Your task to perform on an android device: open app "Google Photos" (install if not already installed) Image 0: 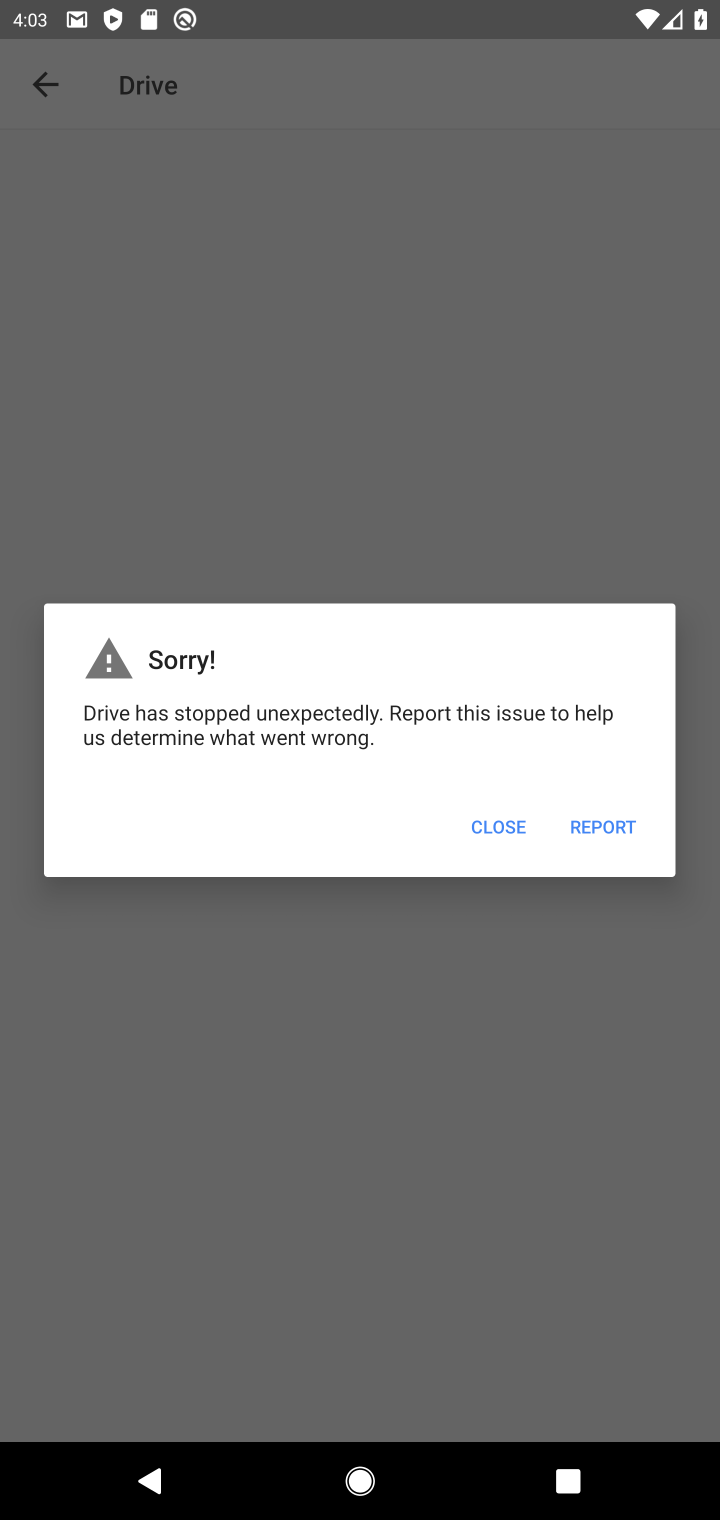
Step 0: click (480, 618)
Your task to perform on an android device: open app "Google Photos" (install if not already installed) Image 1: 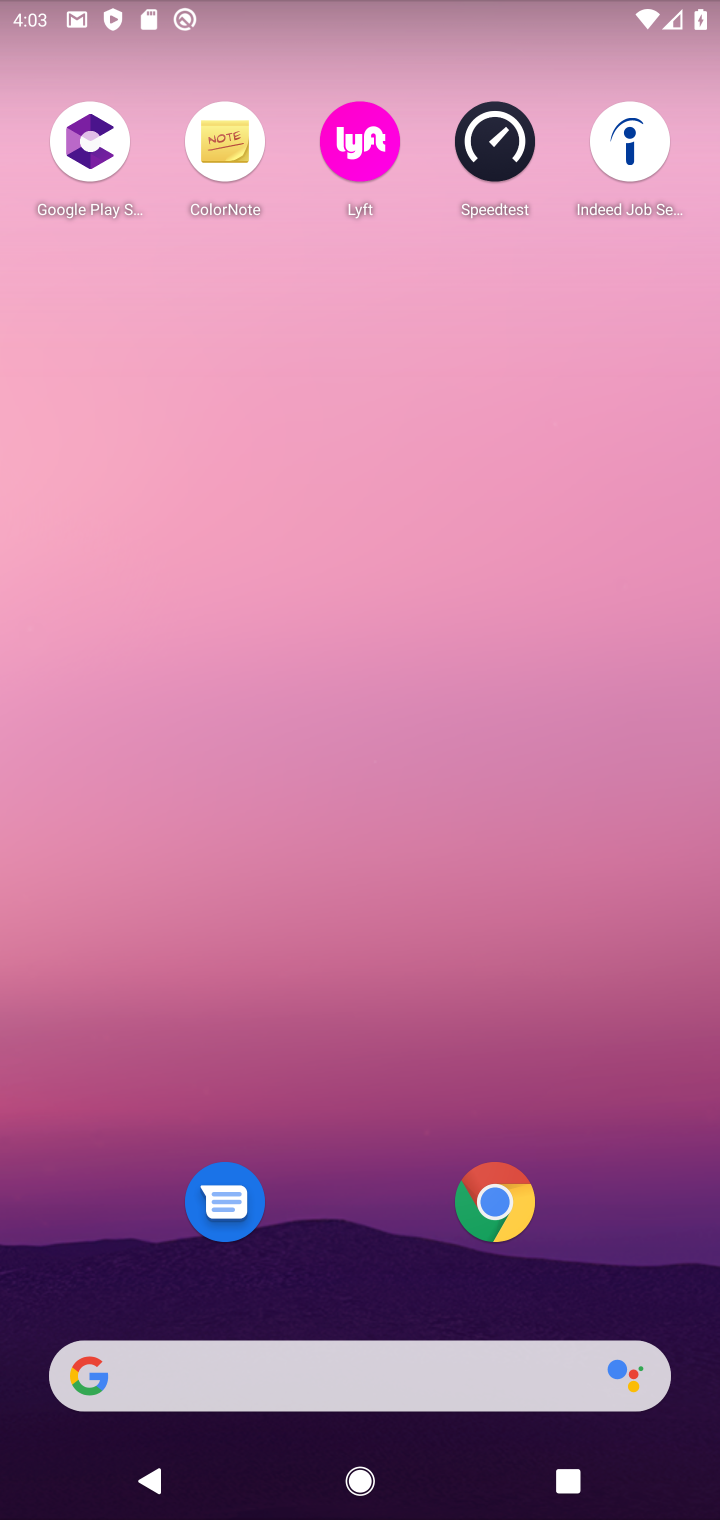
Step 1: click (294, 72)
Your task to perform on an android device: open app "Google Photos" (install if not already installed) Image 2: 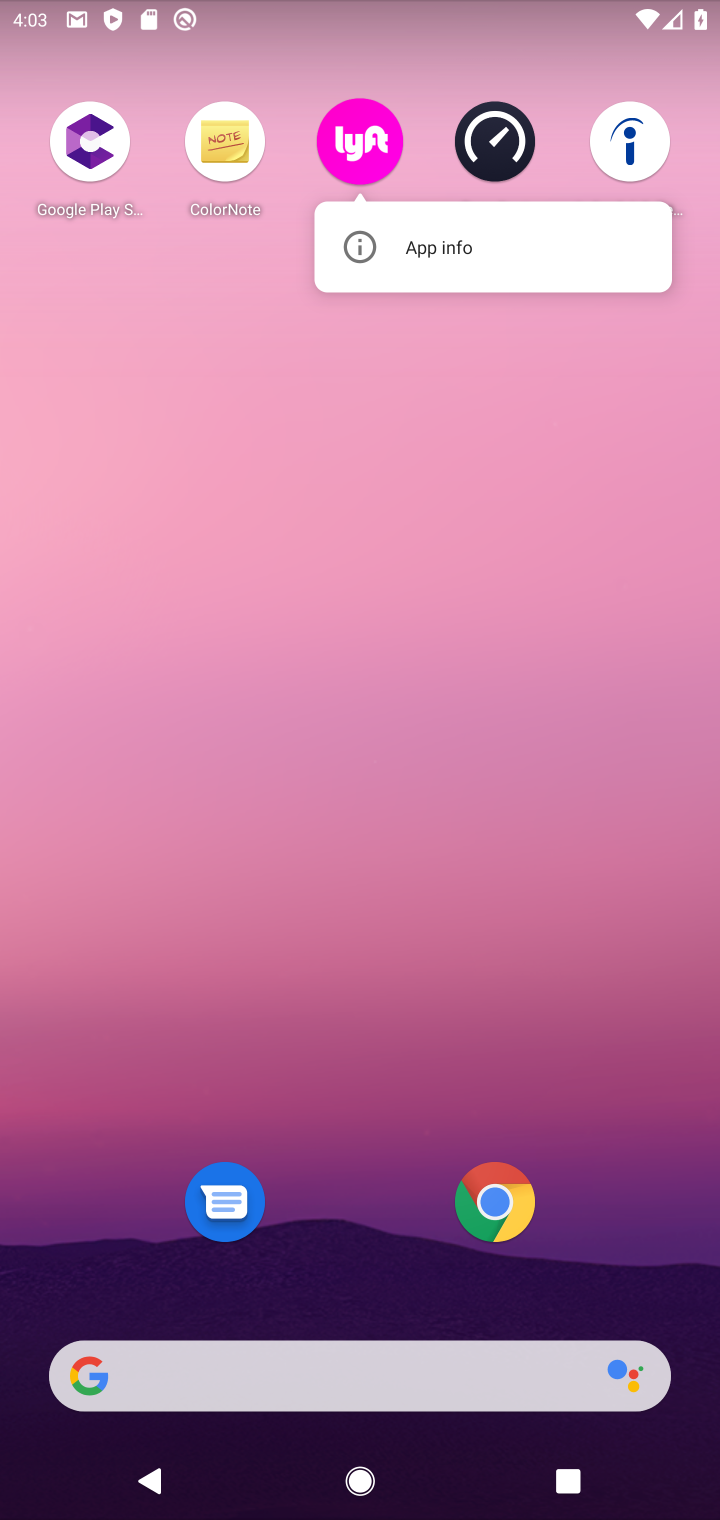
Step 2: press home button
Your task to perform on an android device: open app "Google Photos" (install if not already installed) Image 3: 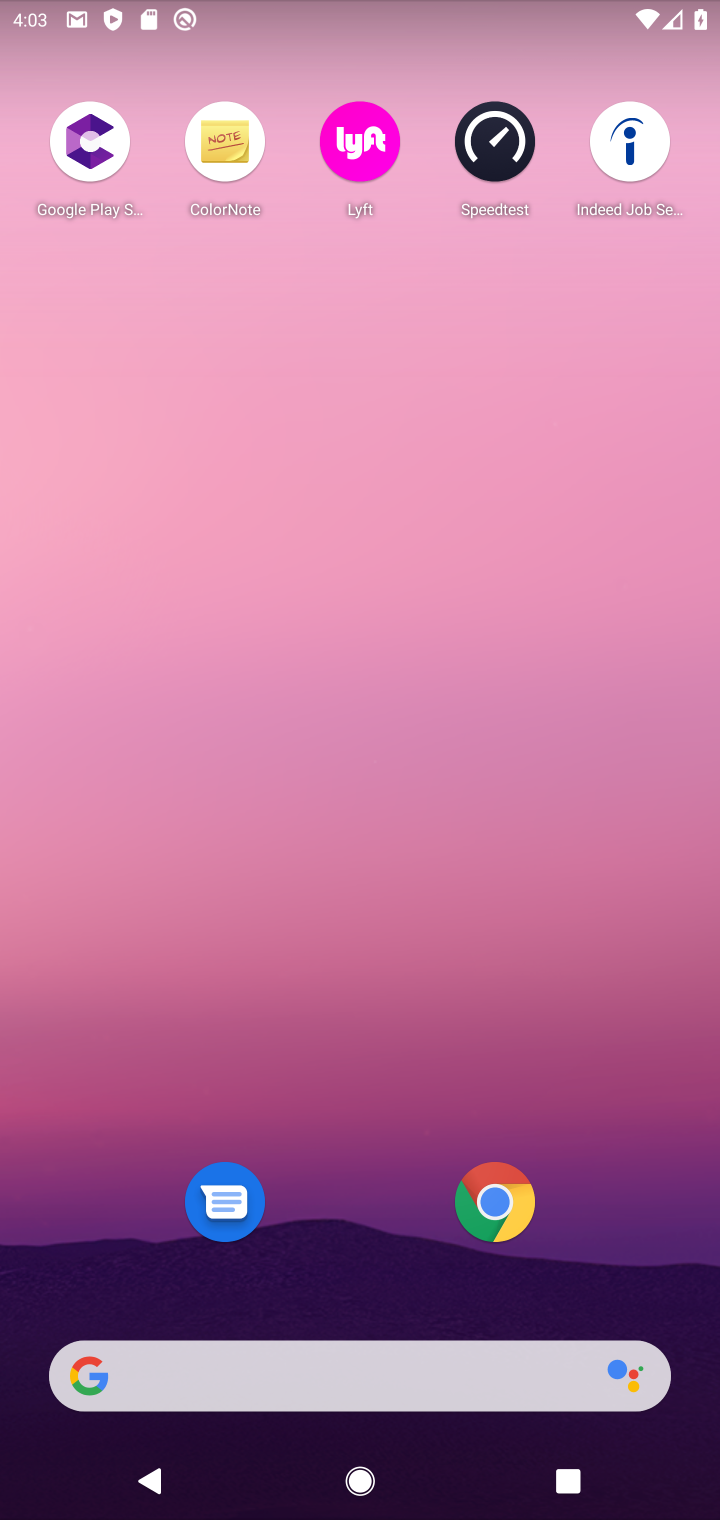
Step 3: drag from (325, 734) to (413, 479)
Your task to perform on an android device: open app "Google Photos" (install if not already installed) Image 4: 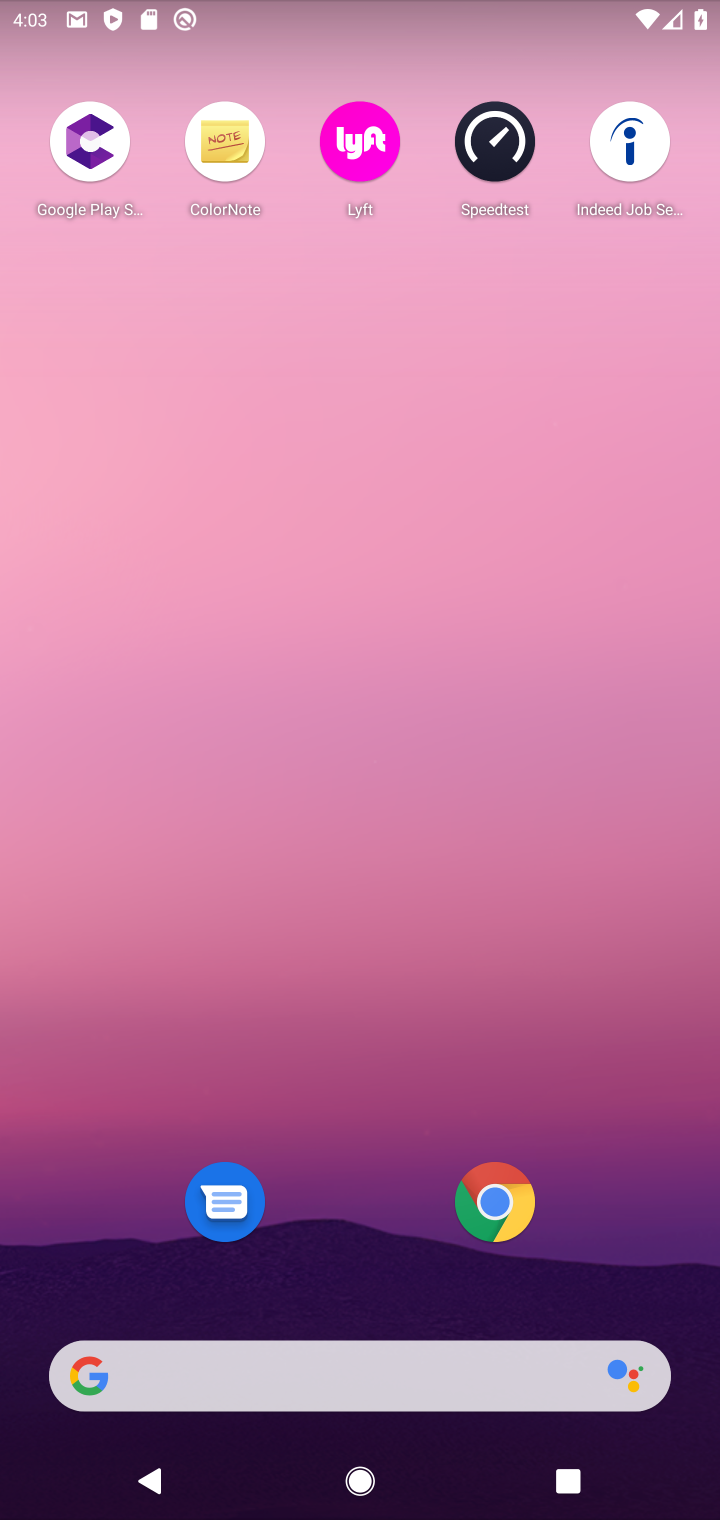
Step 4: drag from (337, 1040) to (611, 24)
Your task to perform on an android device: open app "Google Photos" (install if not already installed) Image 5: 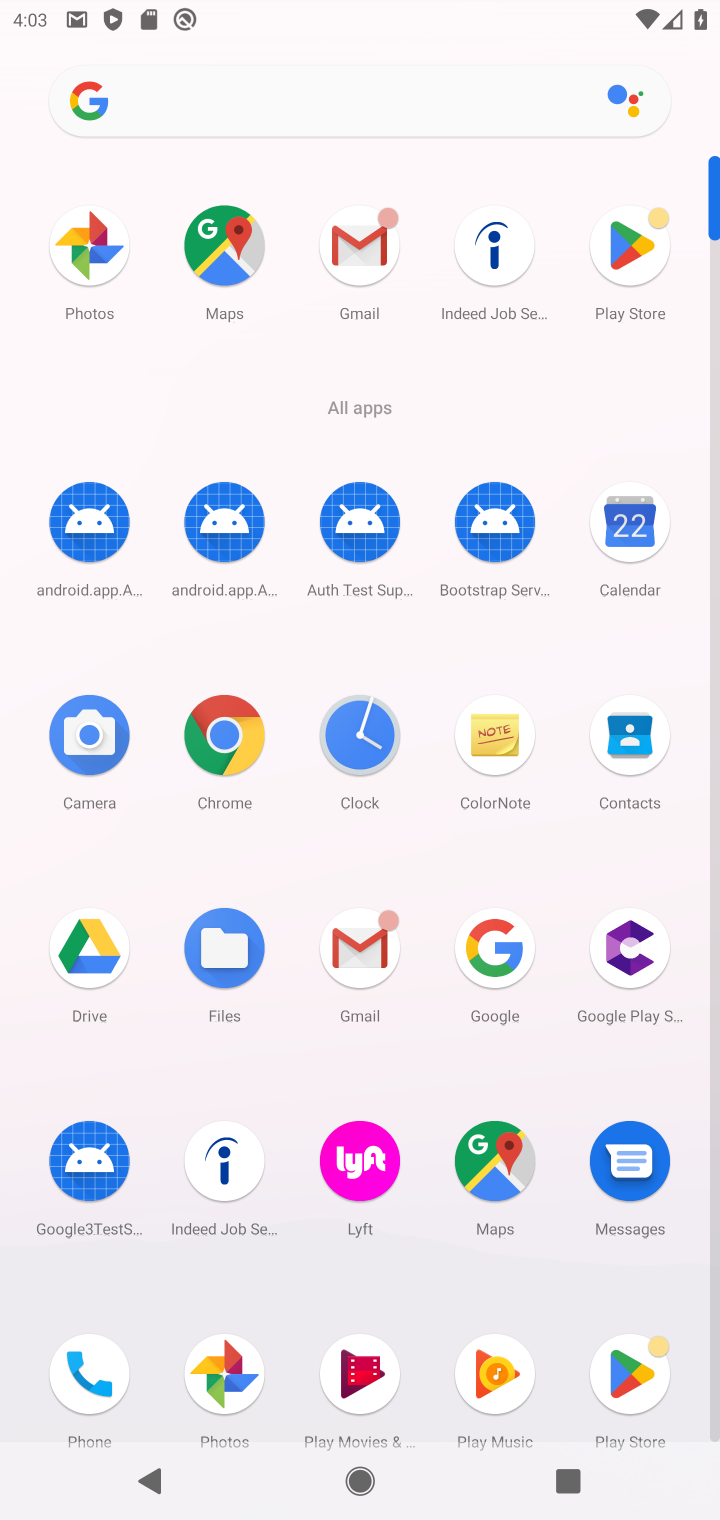
Step 5: click (631, 286)
Your task to perform on an android device: open app "Google Photos" (install if not already installed) Image 6: 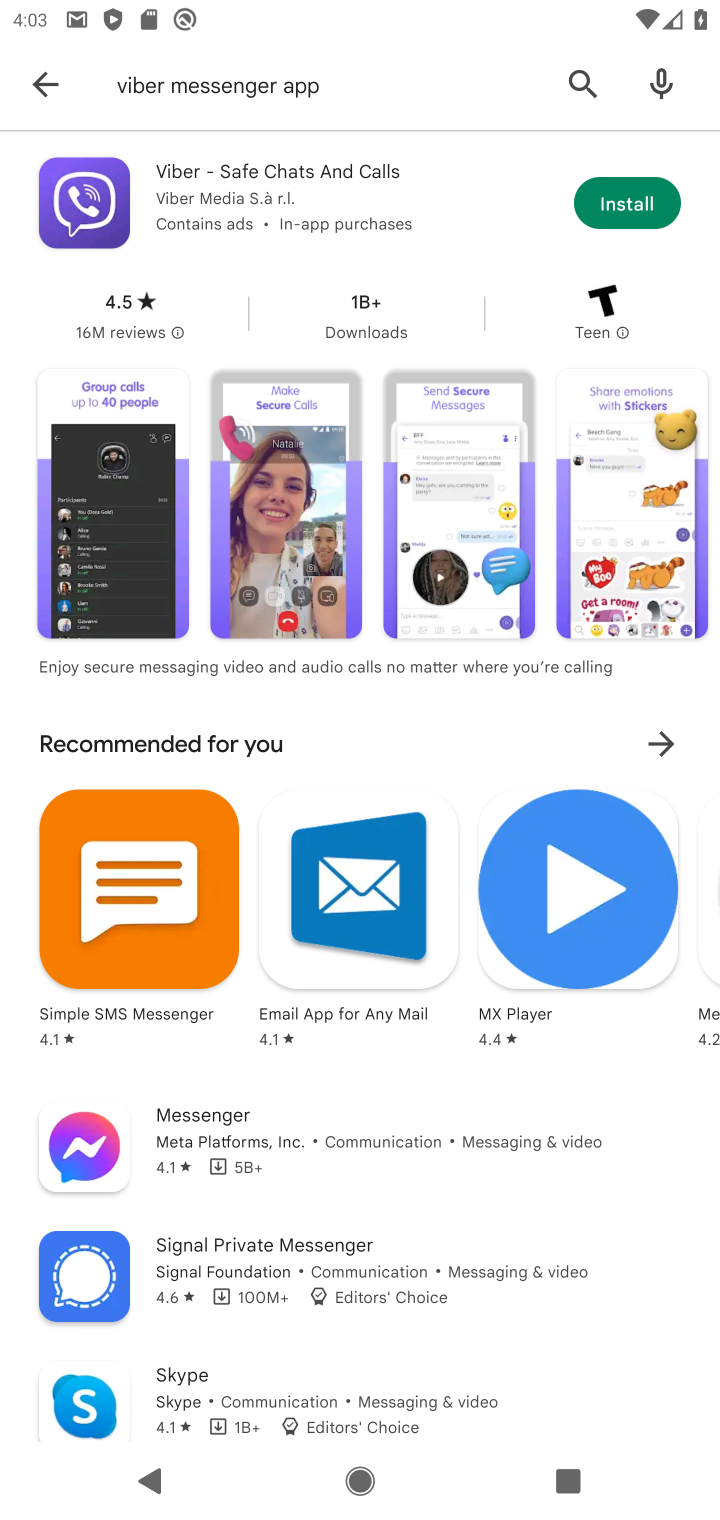
Step 6: click (293, 87)
Your task to perform on an android device: open app "Google Photos" (install if not already installed) Image 7: 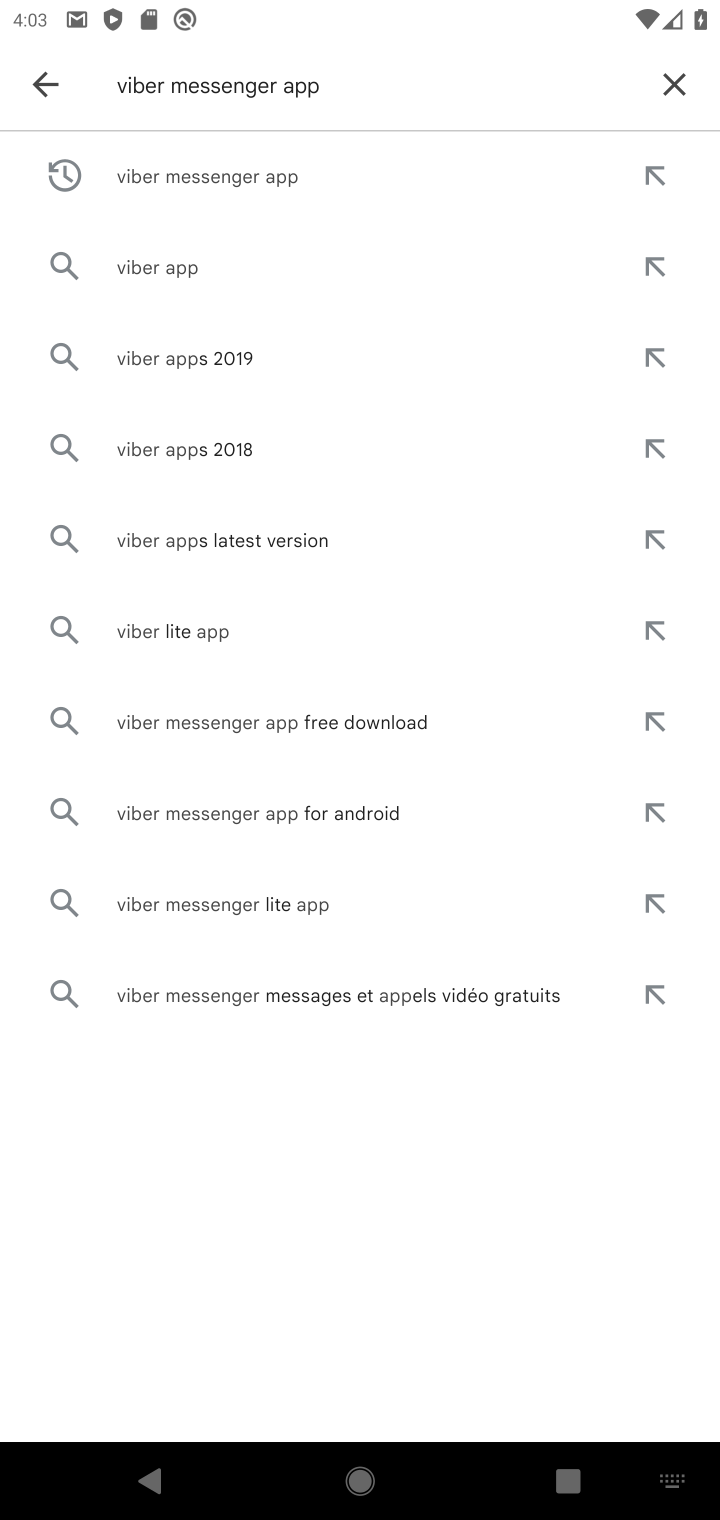
Step 7: click (680, 84)
Your task to perform on an android device: open app "Google Photos" (install if not already installed) Image 8: 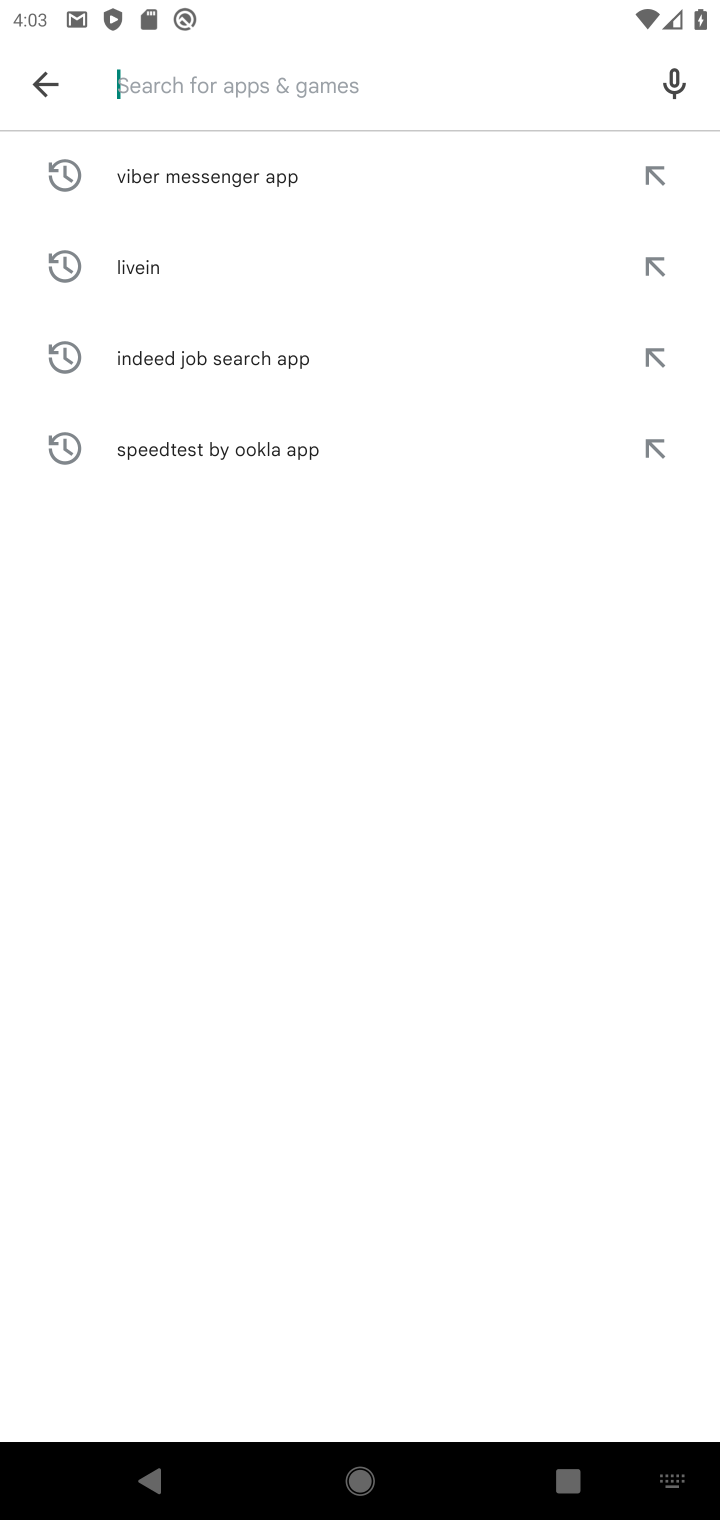
Step 8: type "google photos"
Your task to perform on an android device: open app "Google Photos" (install if not already installed) Image 9: 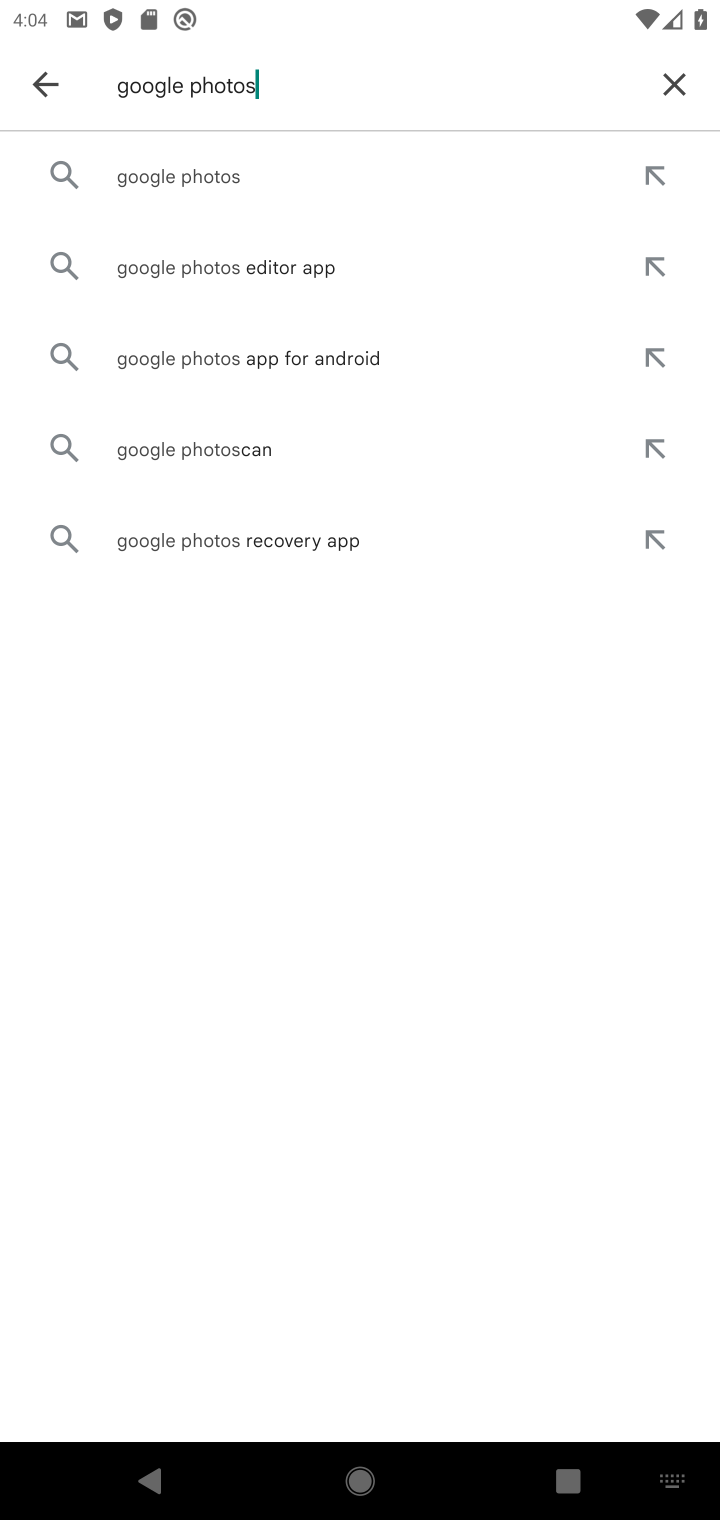
Step 9: click (221, 159)
Your task to perform on an android device: open app "Google Photos" (install if not already installed) Image 10: 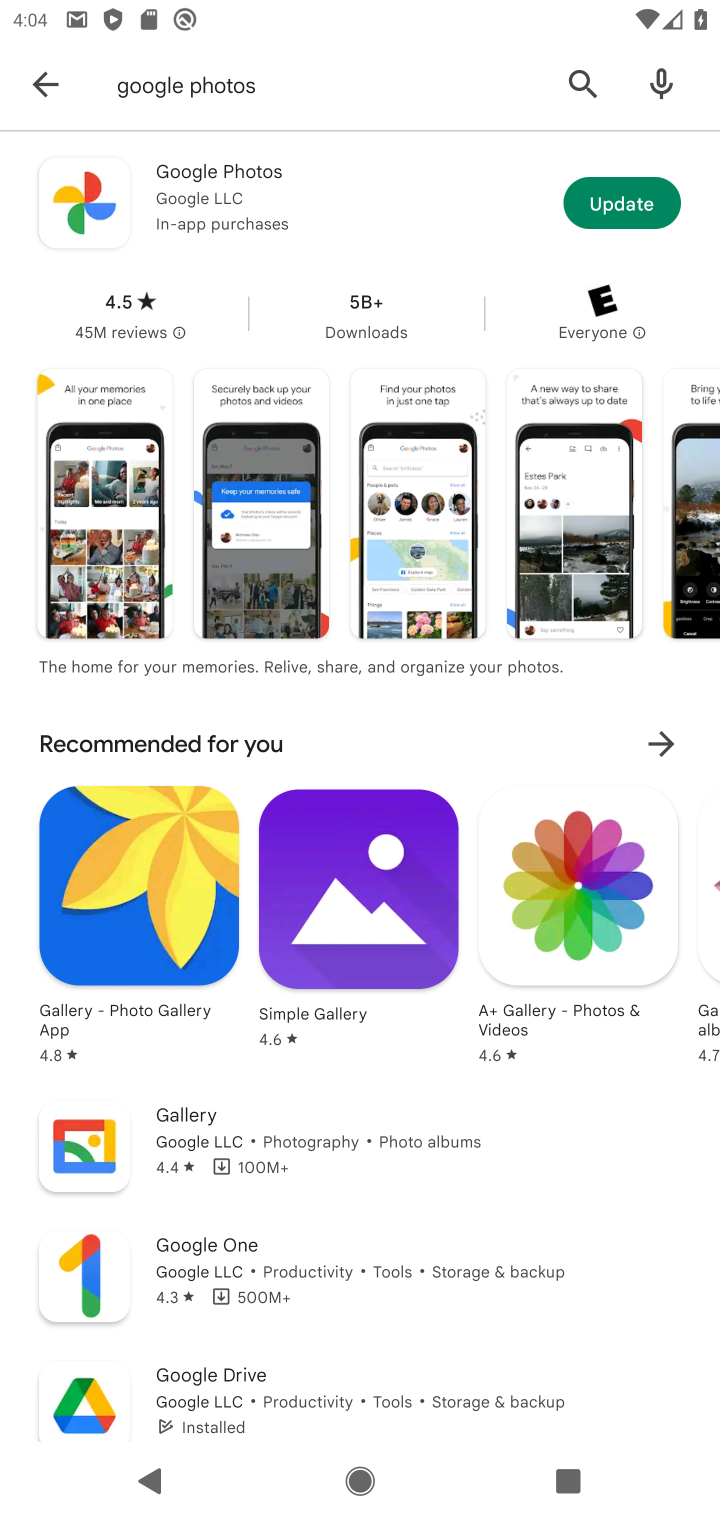
Step 10: click (617, 198)
Your task to perform on an android device: open app "Google Photos" (install if not already installed) Image 11: 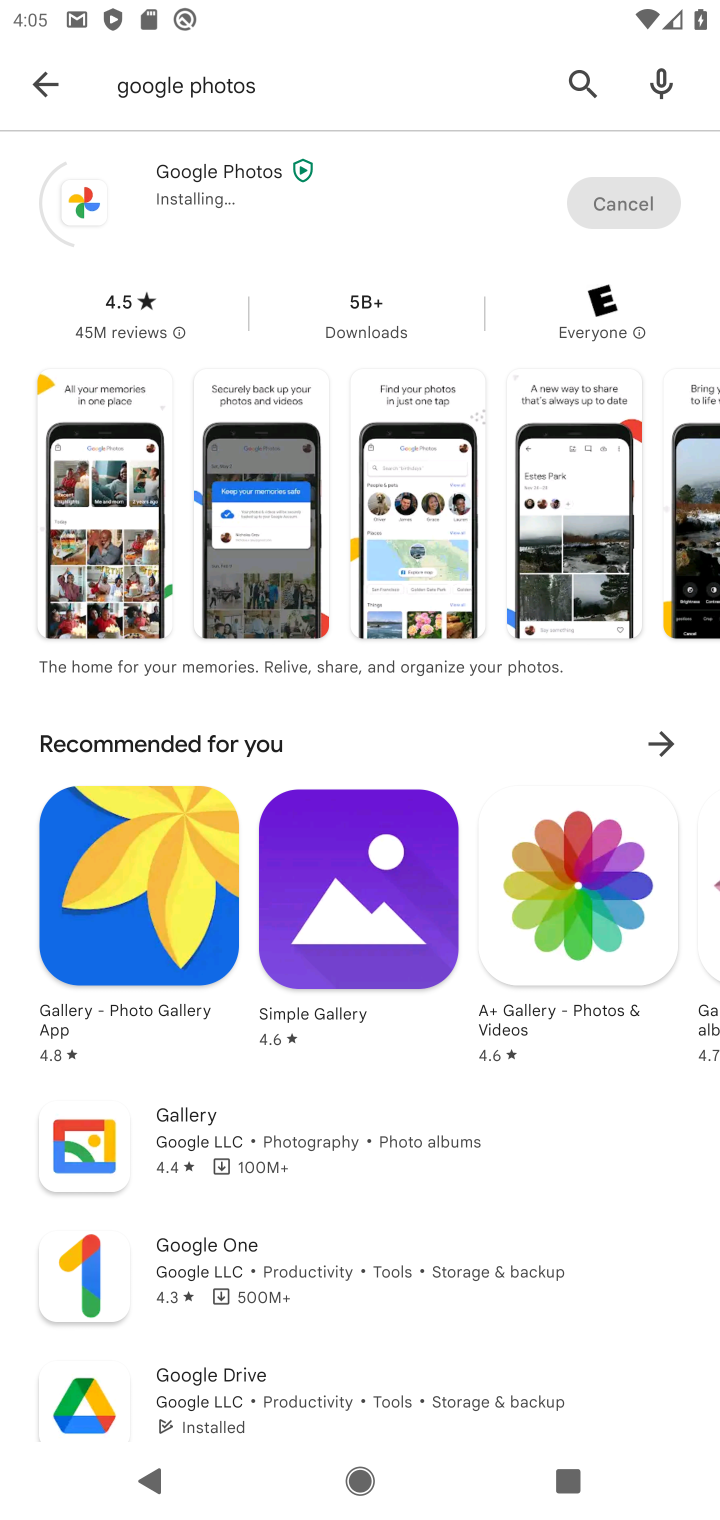
Step 11: click (432, 320)
Your task to perform on an android device: open app "Google Photos" (install if not already installed) Image 12: 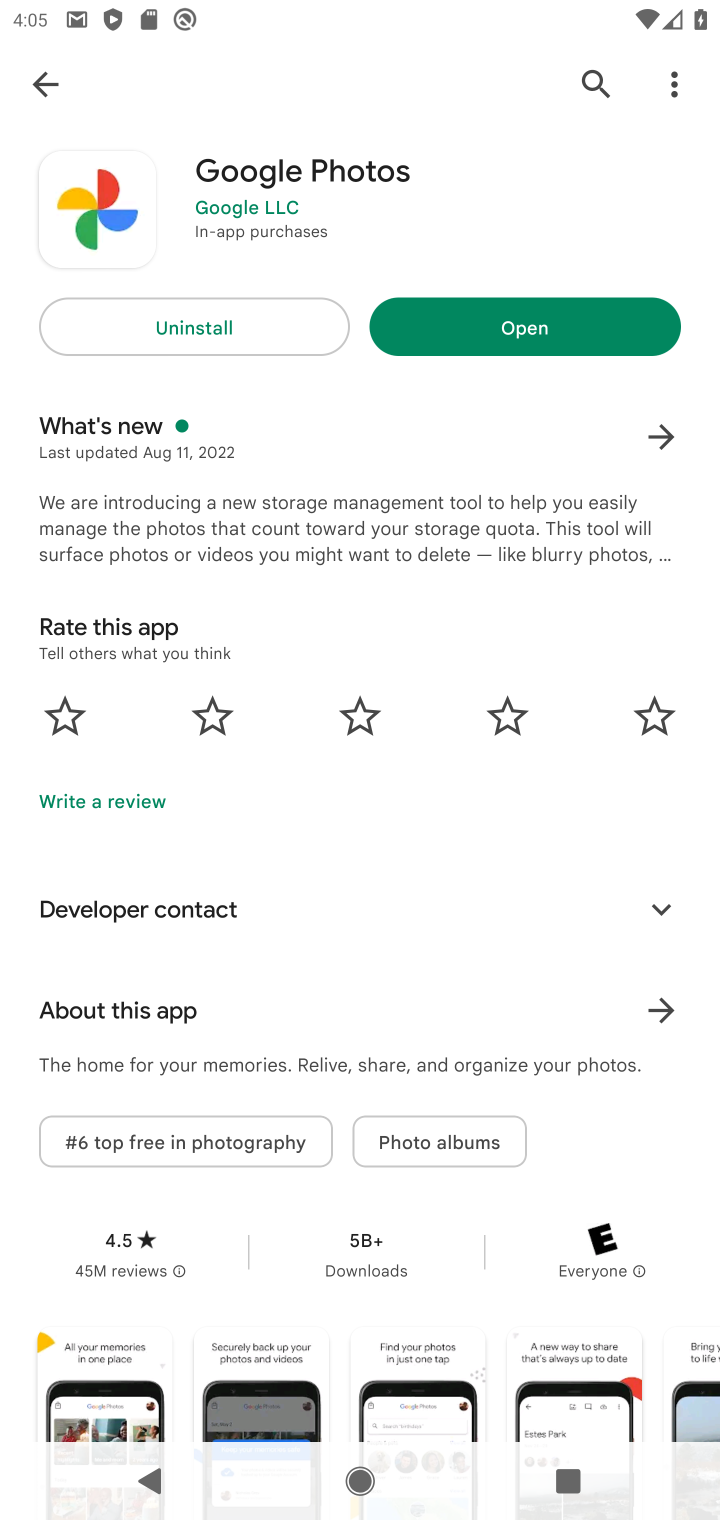
Step 12: click (459, 319)
Your task to perform on an android device: open app "Google Photos" (install if not already installed) Image 13: 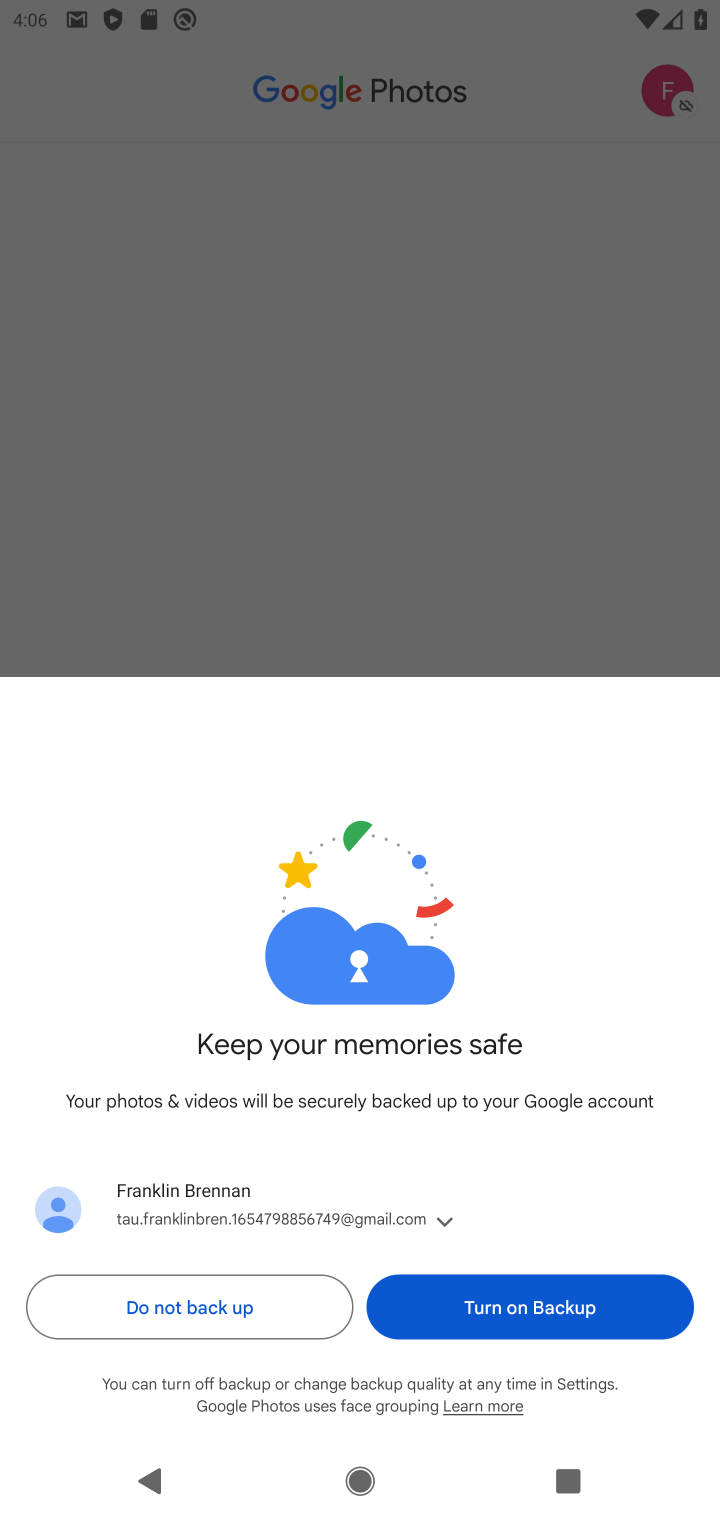
Step 13: click (274, 1314)
Your task to perform on an android device: open app "Google Photos" (install if not already installed) Image 14: 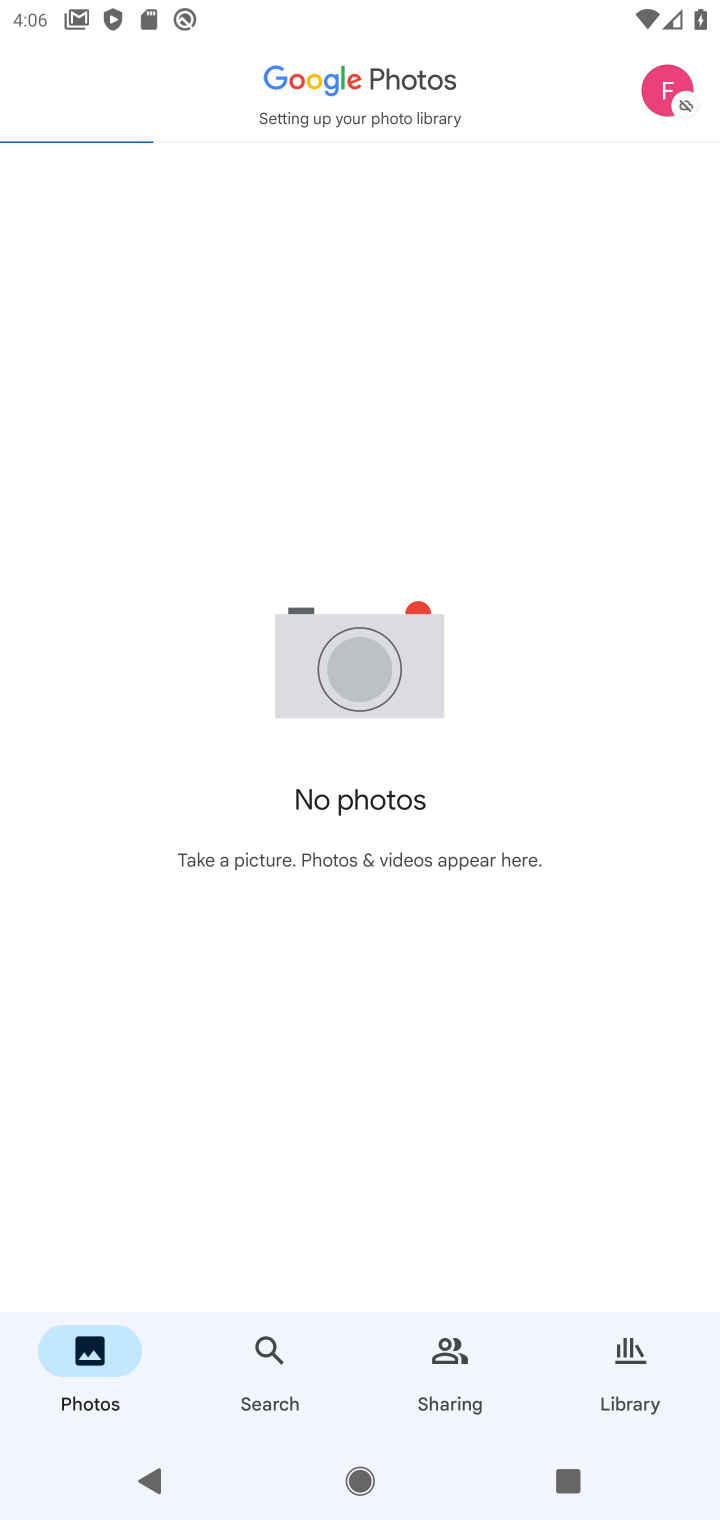
Step 14: task complete